Your task to perform on an android device: toggle priority inbox in the gmail app Image 0: 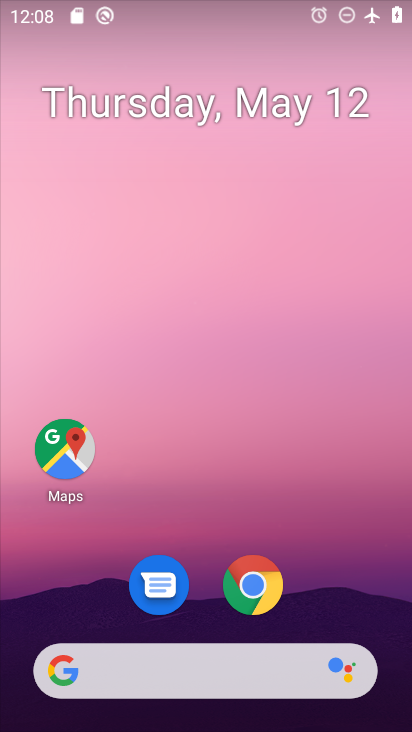
Step 0: drag from (295, 404) to (253, 1)
Your task to perform on an android device: toggle priority inbox in the gmail app Image 1: 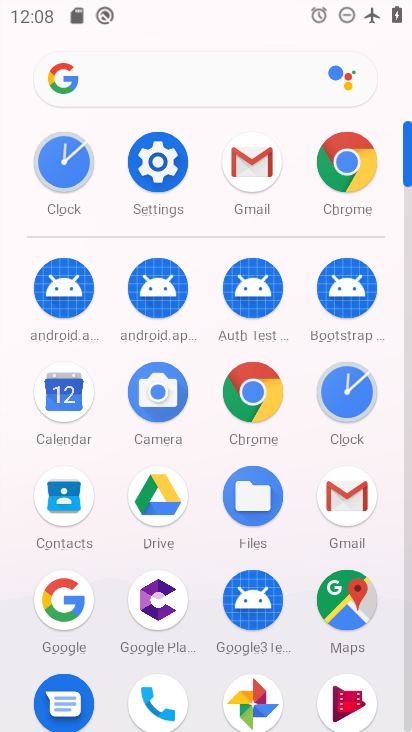
Step 1: click (250, 171)
Your task to perform on an android device: toggle priority inbox in the gmail app Image 2: 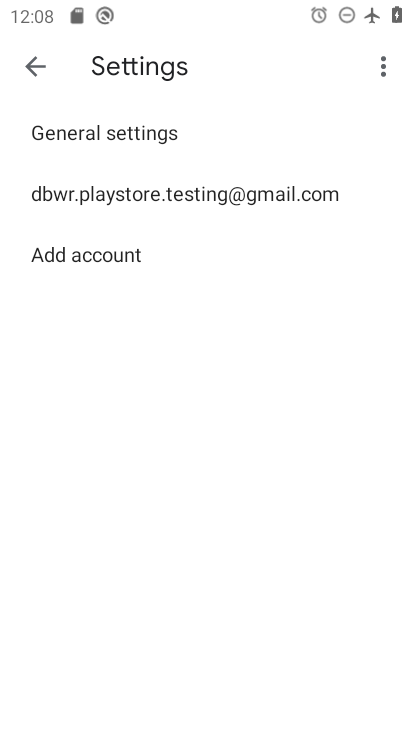
Step 2: click (243, 183)
Your task to perform on an android device: toggle priority inbox in the gmail app Image 3: 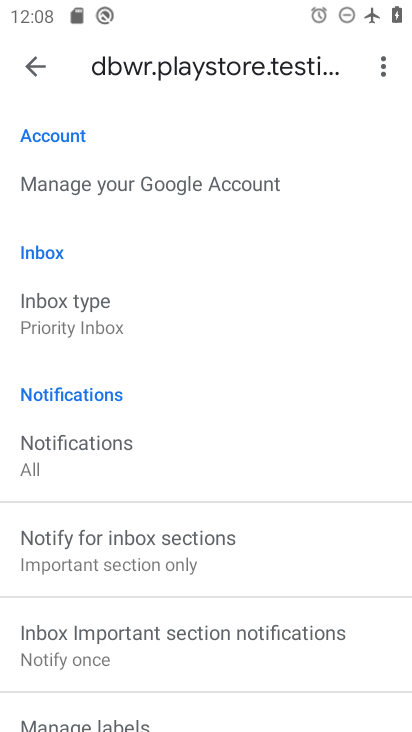
Step 3: click (108, 307)
Your task to perform on an android device: toggle priority inbox in the gmail app Image 4: 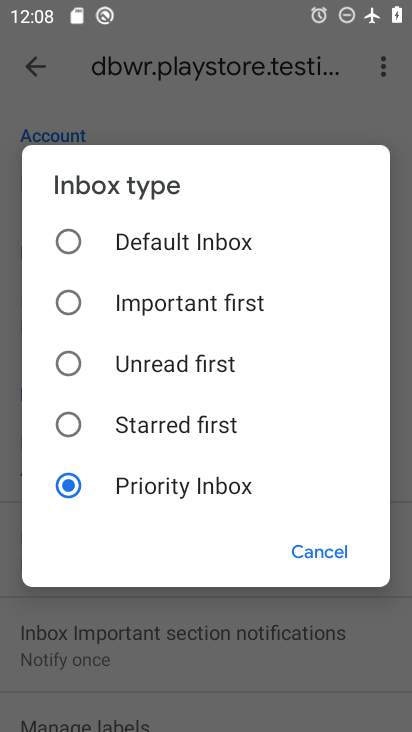
Step 4: click (62, 234)
Your task to perform on an android device: toggle priority inbox in the gmail app Image 5: 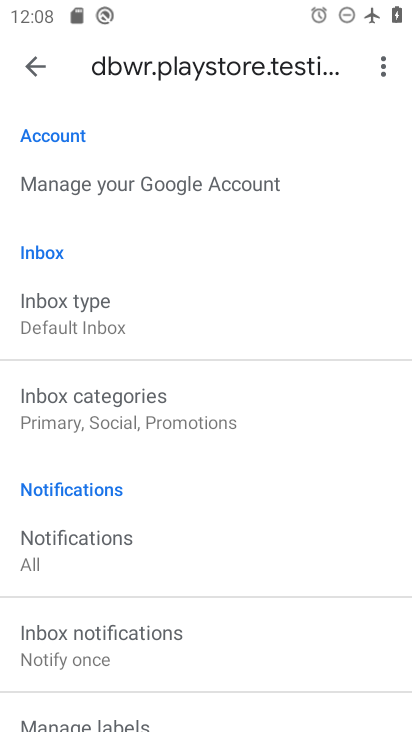
Step 5: task complete